Your task to perform on an android device: Open Android settings Image 0: 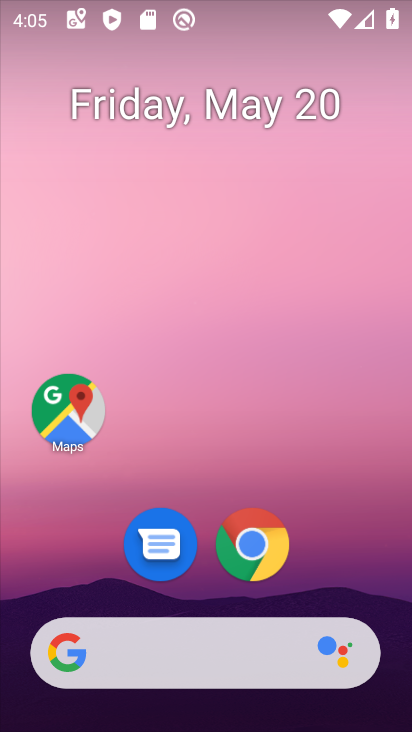
Step 0: drag from (362, 591) to (406, 539)
Your task to perform on an android device: Open Android settings Image 1: 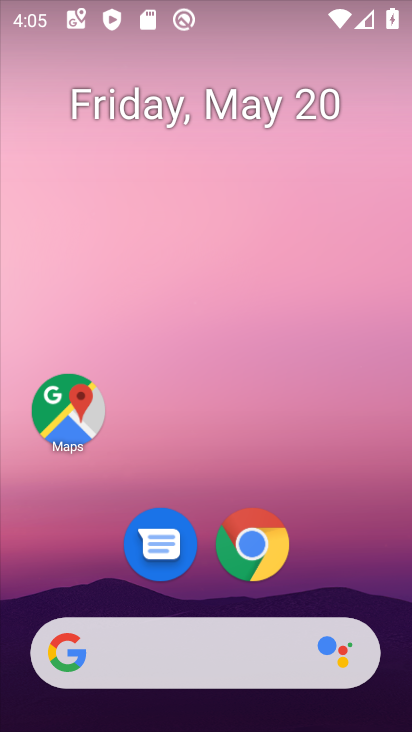
Step 1: drag from (401, 539) to (411, 433)
Your task to perform on an android device: Open Android settings Image 2: 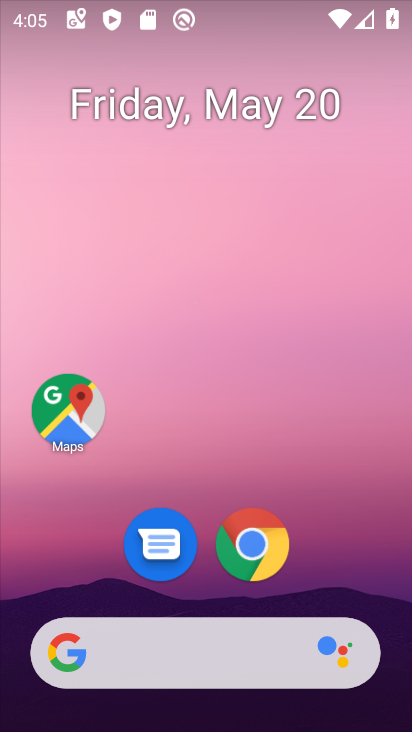
Step 2: drag from (386, 540) to (410, 255)
Your task to perform on an android device: Open Android settings Image 3: 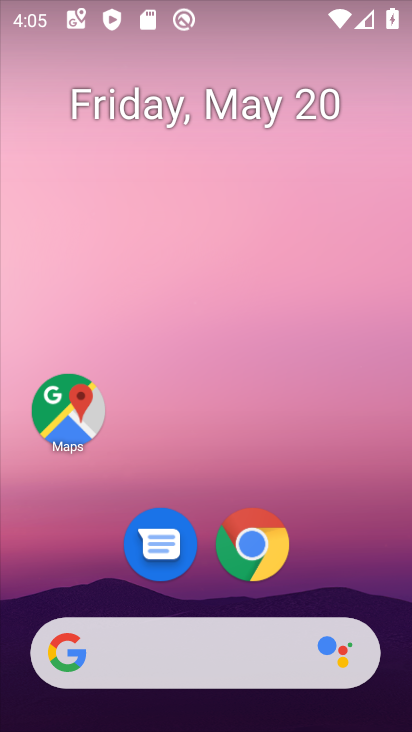
Step 3: drag from (395, 599) to (406, 42)
Your task to perform on an android device: Open Android settings Image 4: 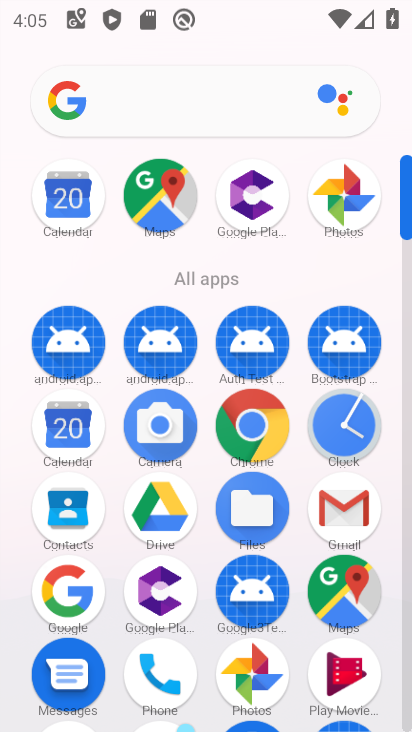
Step 4: drag from (402, 581) to (406, 277)
Your task to perform on an android device: Open Android settings Image 5: 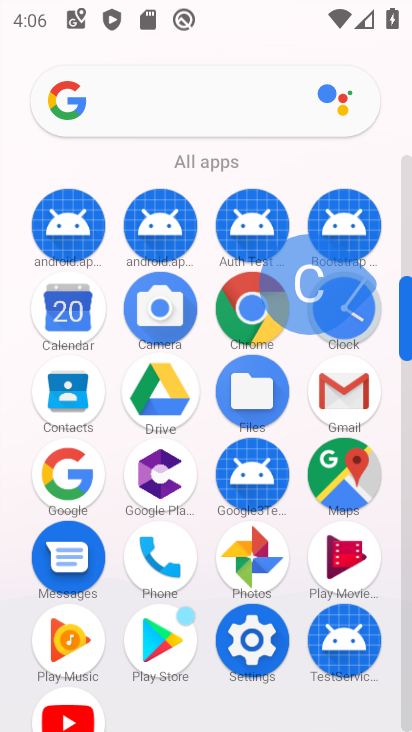
Step 5: click (260, 605)
Your task to perform on an android device: Open Android settings Image 6: 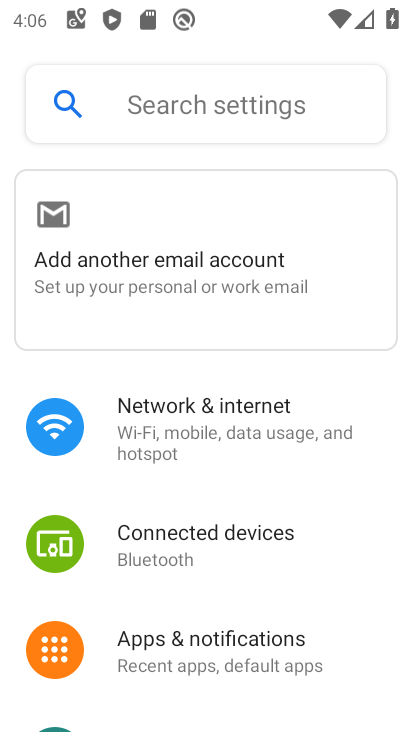
Step 6: task complete